Your task to perform on an android device: allow cookies in the chrome app Image 0: 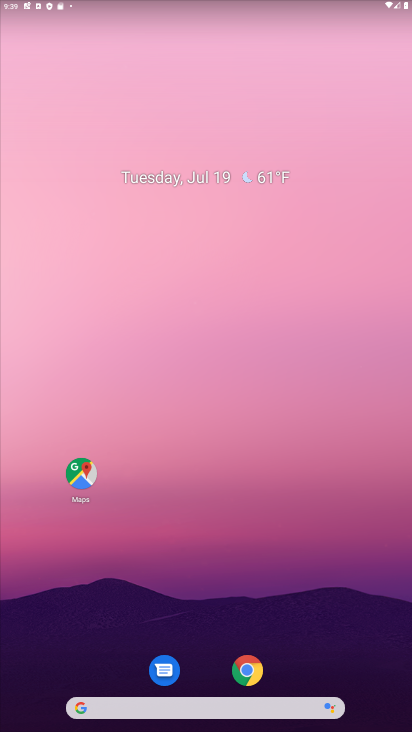
Step 0: click (251, 656)
Your task to perform on an android device: allow cookies in the chrome app Image 1: 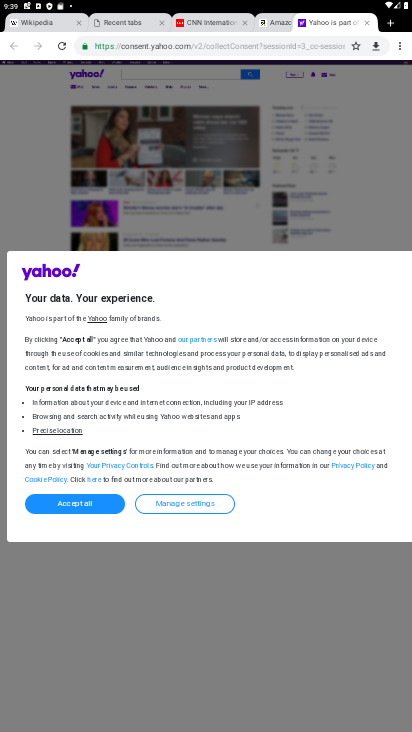
Step 1: click (400, 41)
Your task to perform on an android device: allow cookies in the chrome app Image 2: 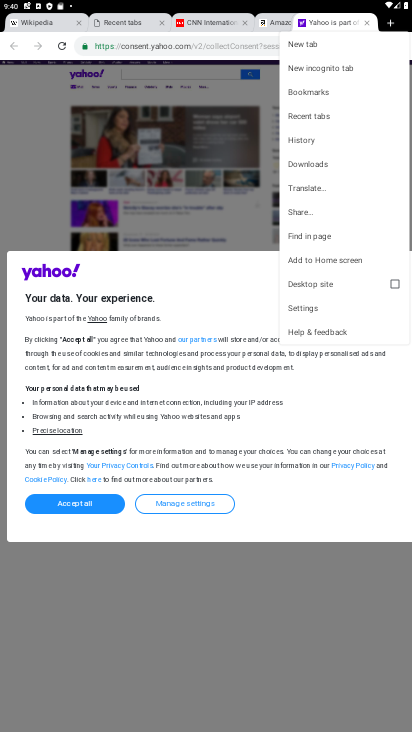
Step 2: click (307, 310)
Your task to perform on an android device: allow cookies in the chrome app Image 3: 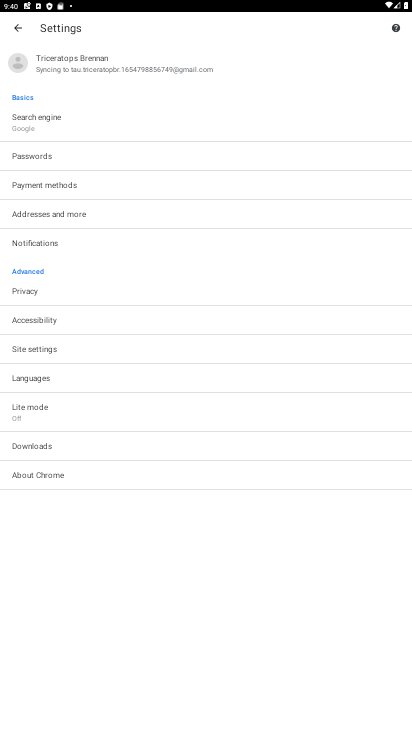
Step 3: click (102, 348)
Your task to perform on an android device: allow cookies in the chrome app Image 4: 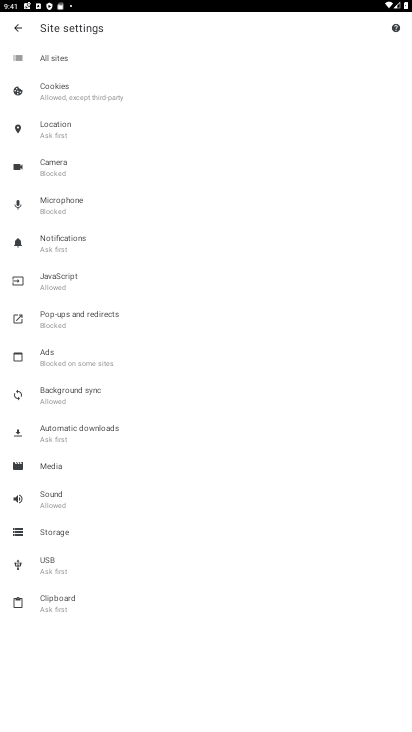
Step 4: click (125, 88)
Your task to perform on an android device: allow cookies in the chrome app Image 5: 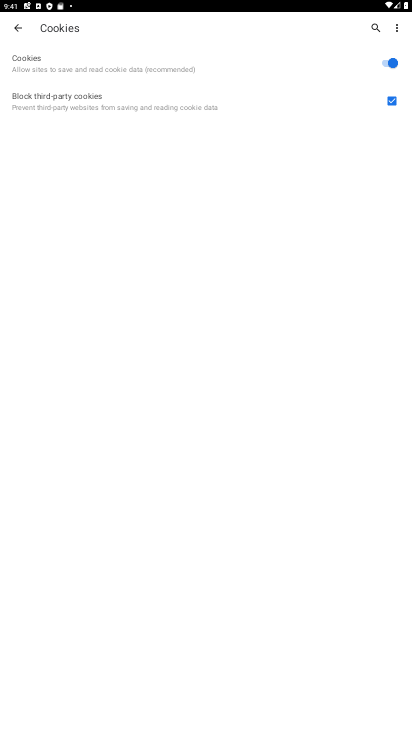
Step 5: task complete